Your task to perform on an android device: Open Chrome and go to settings Image 0: 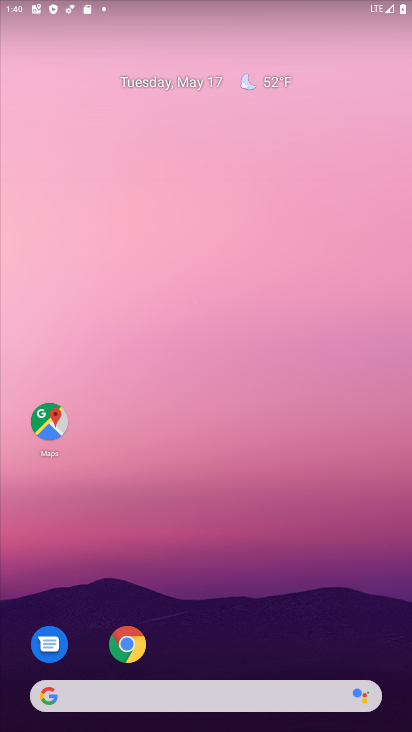
Step 0: click (149, 649)
Your task to perform on an android device: Open Chrome and go to settings Image 1: 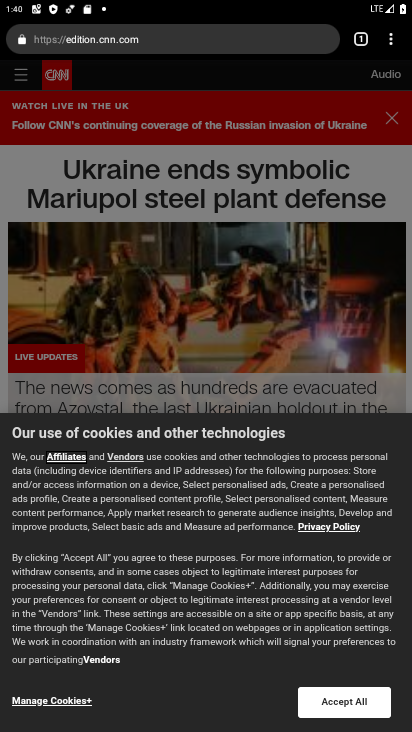
Step 1: task complete